Your task to perform on an android device: Do I have any events tomorrow? Image 0: 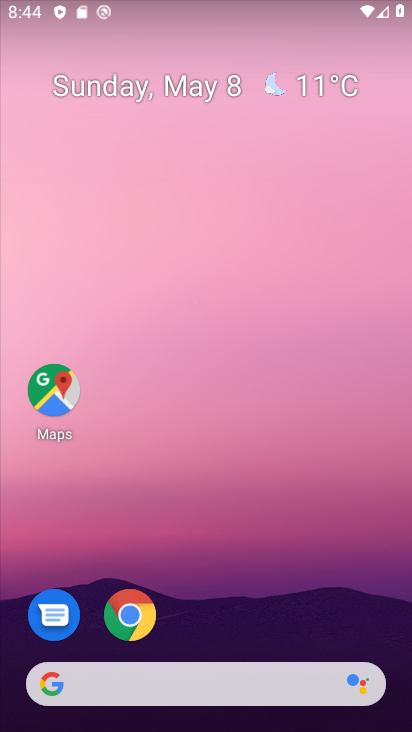
Step 0: click (396, 216)
Your task to perform on an android device: Do I have any events tomorrow? Image 1: 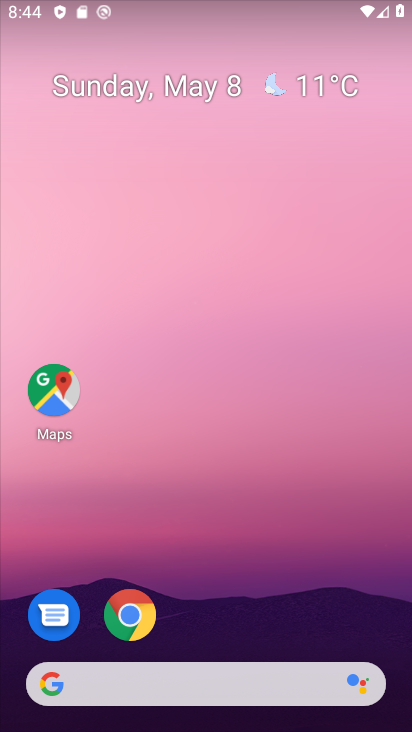
Step 1: drag from (271, 299) to (297, 114)
Your task to perform on an android device: Do I have any events tomorrow? Image 2: 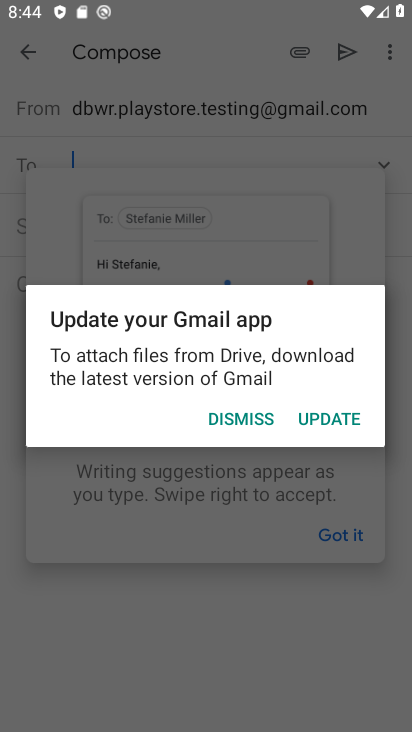
Step 2: press home button
Your task to perform on an android device: Do I have any events tomorrow? Image 3: 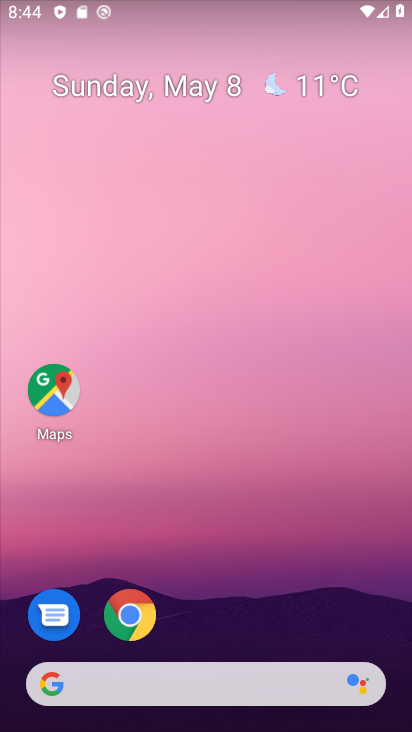
Step 3: drag from (334, 638) to (311, 216)
Your task to perform on an android device: Do I have any events tomorrow? Image 4: 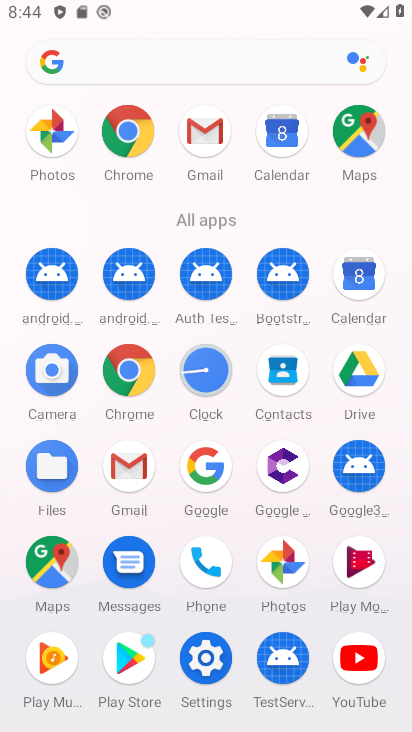
Step 4: click (367, 274)
Your task to perform on an android device: Do I have any events tomorrow? Image 5: 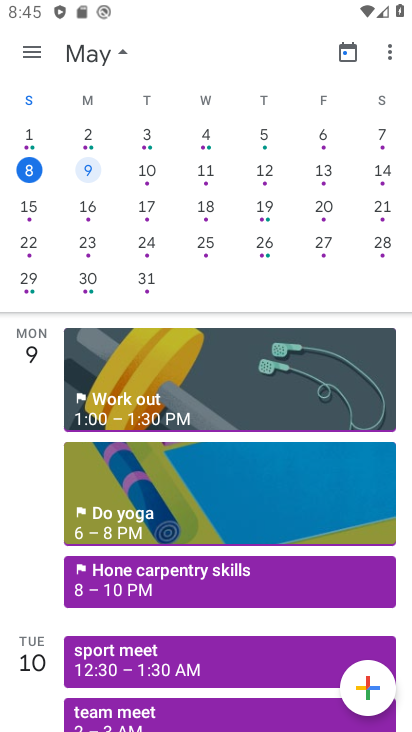
Step 5: click (85, 169)
Your task to perform on an android device: Do I have any events tomorrow? Image 6: 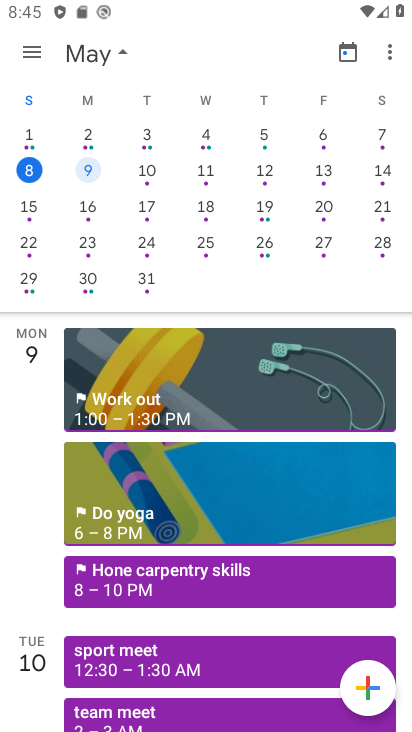
Step 6: click (84, 170)
Your task to perform on an android device: Do I have any events tomorrow? Image 7: 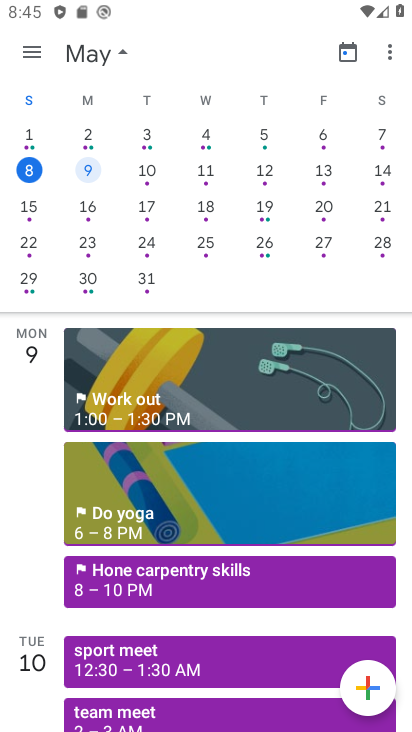
Step 7: click (89, 167)
Your task to perform on an android device: Do I have any events tomorrow? Image 8: 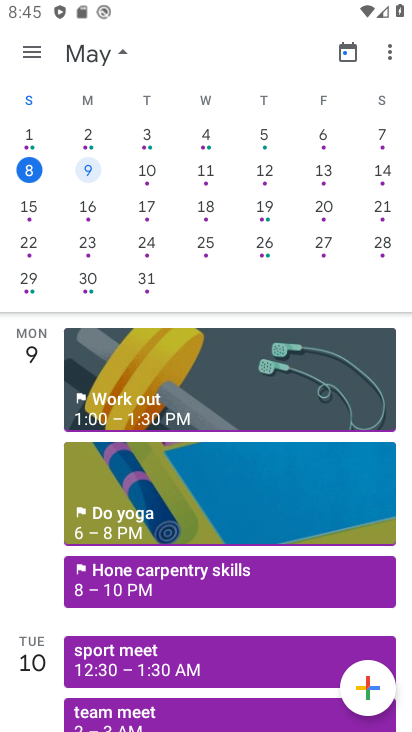
Step 8: click (89, 167)
Your task to perform on an android device: Do I have any events tomorrow? Image 9: 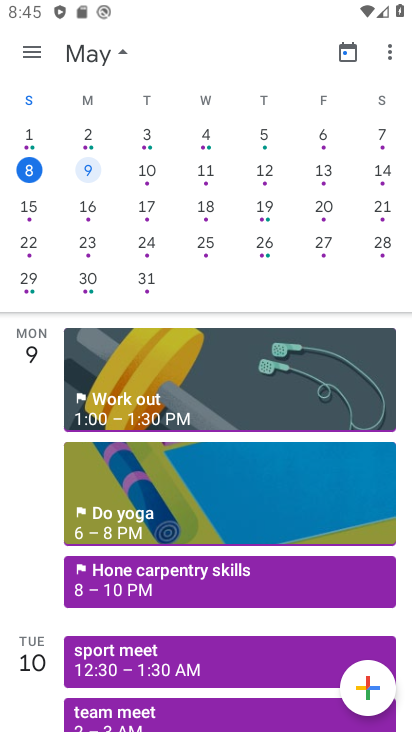
Step 9: click (150, 172)
Your task to perform on an android device: Do I have any events tomorrow? Image 10: 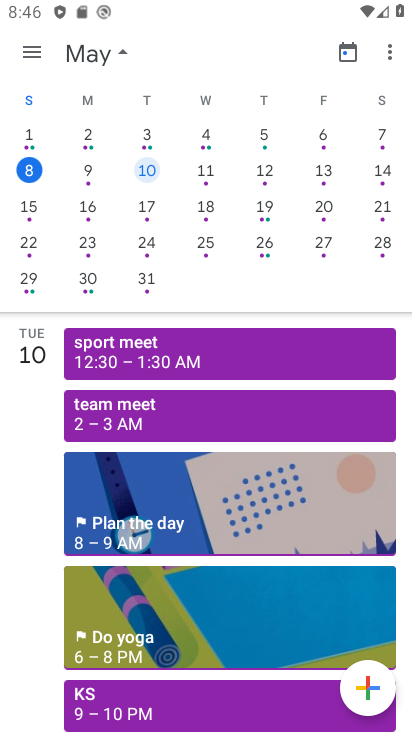
Step 10: click (81, 171)
Your task to perform on an android device: Do I have any events tomorrow? Image 11: 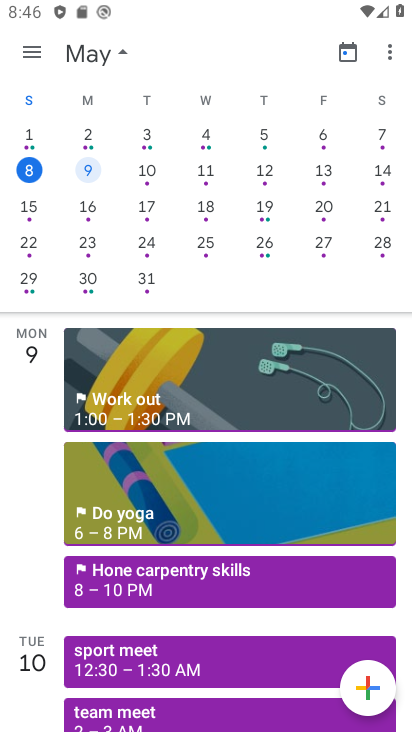
Step 11: task complete